Your task to perform on an android device: Go to battery settings Image 0: 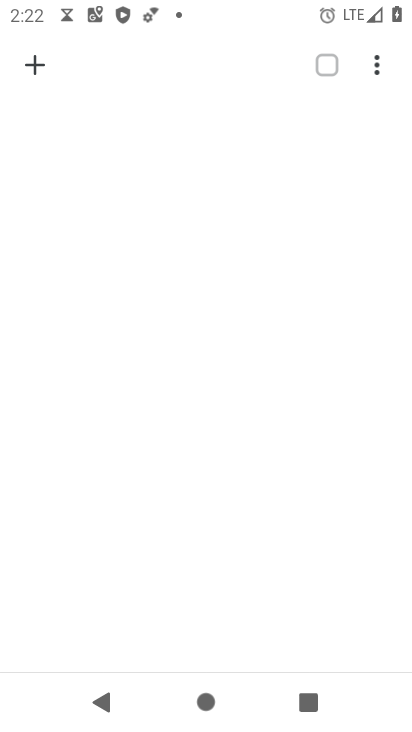
Step 0: press back button
Your task to perform on an android device: Go to battery settings Image 1: 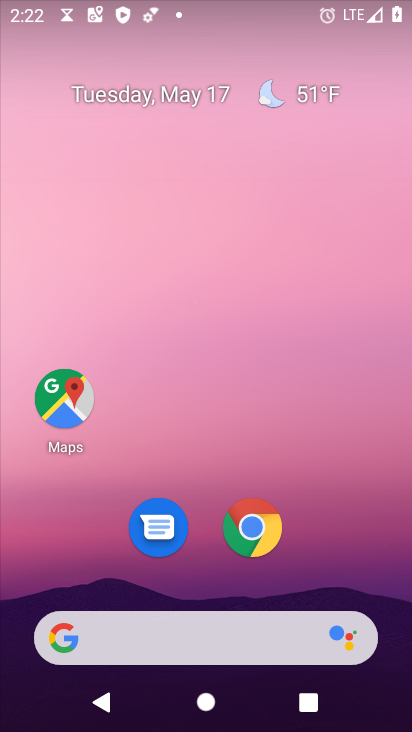
Step 1: drag from (338, 528) to (262, 53)
Your task to perform on an android device: Go to battery settings Image 2: 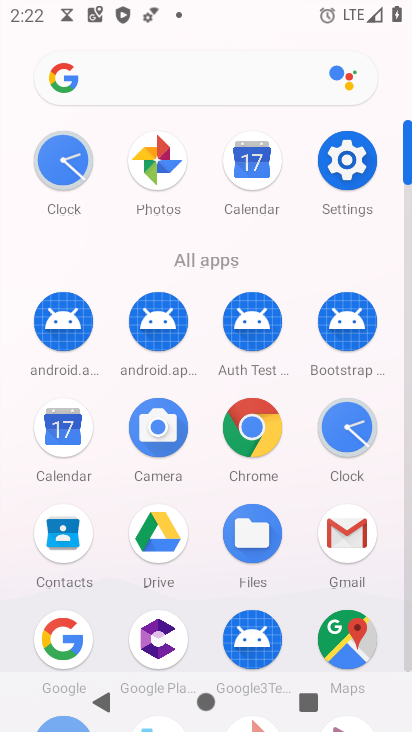
Step 2: click (348, 159)
Your task to perform on an android device: Go to battery settings Image 3: 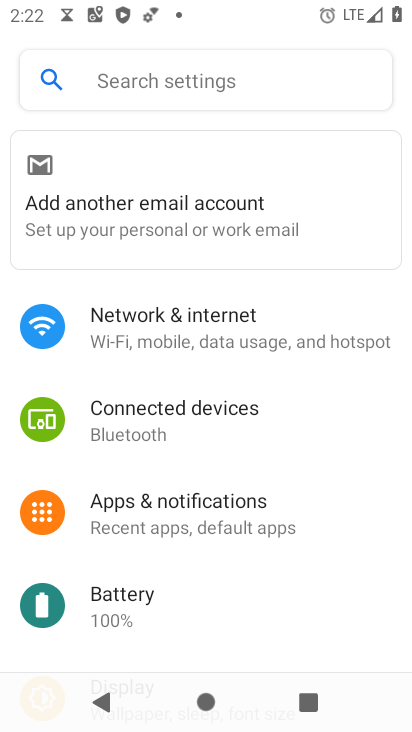
Step 3: click (101, 593)
Your task to perform on an android device: Go to battery settings Image 4: 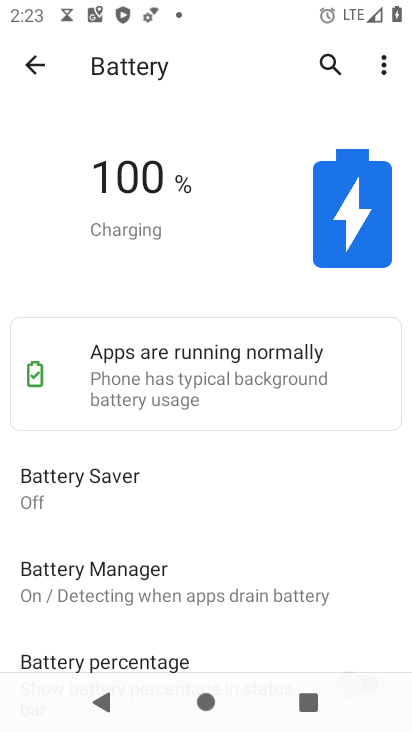
Step 4: task complete